Your task to perform on an android device: open device folders in google photos Image 0: 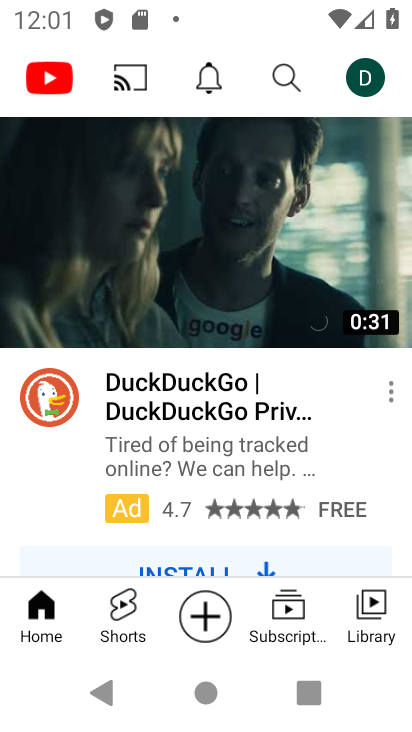
Step 0: press back button
Your task to perform on an android device: open device folders in google photos Image 1: 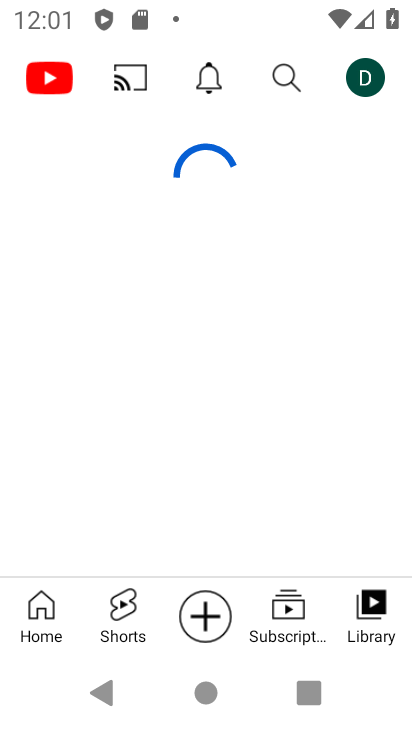
Step 1: press home button
Your task to perform on an android device: open device folders in google photos Image 2: 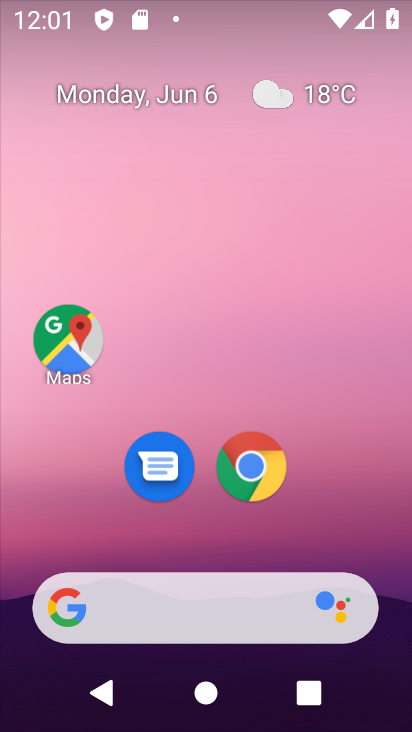
Step 2: drag from (346, 529) to (215, 3)
Your task to perform on an android device: open device folders in google photos Image 3: 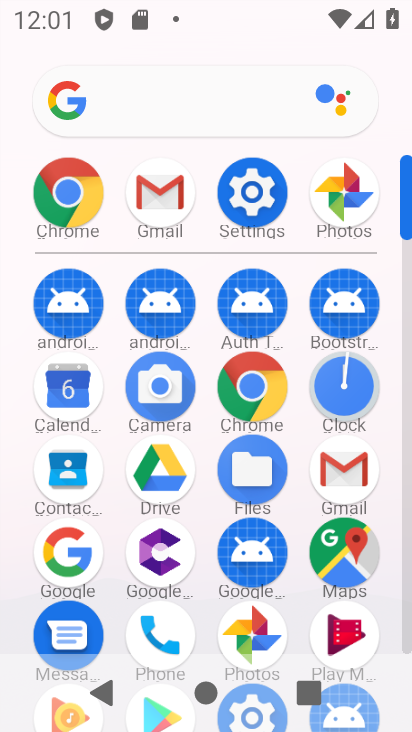
Step 3: drag from (16, 340) to (31, 224)
Your task to perform on an android device: open device folders in google photos Image 4: 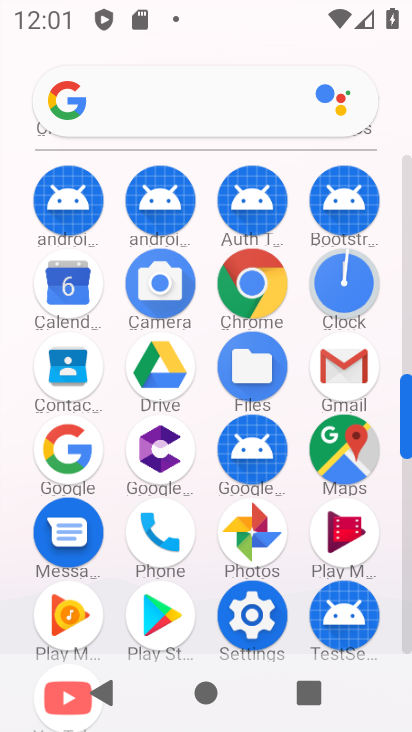
Step 4: click (247, 531)
Your task to perform on an android device: open device folders in google photos Image 5: 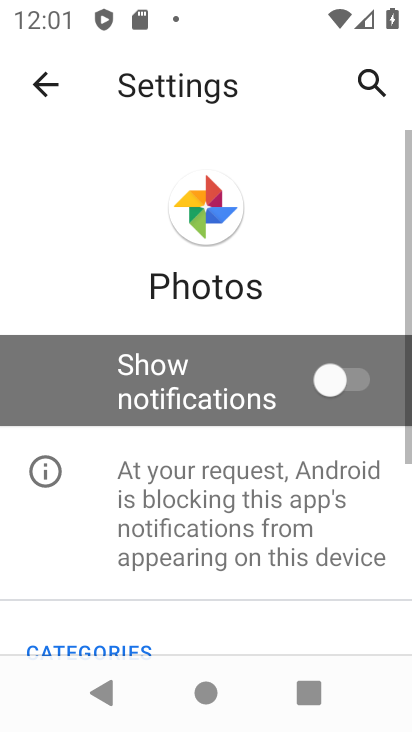
Step 5: click (48, 78)
Your task to perform on an android device: open device folders in google photos Image 6: 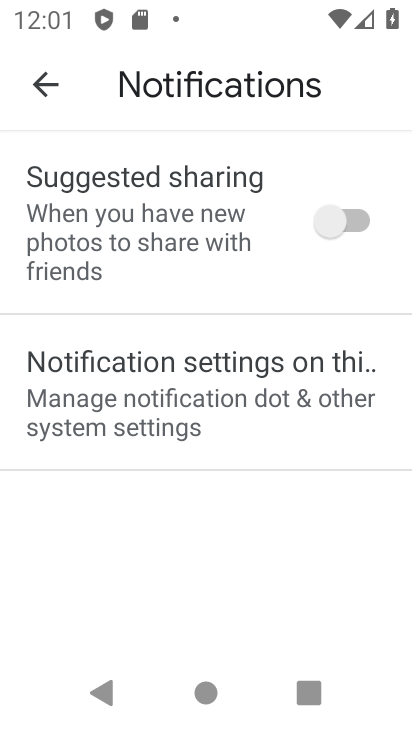
Step 6: click (48, 78)
Your task to perform on an android device: open device folders in google photos Image 7: 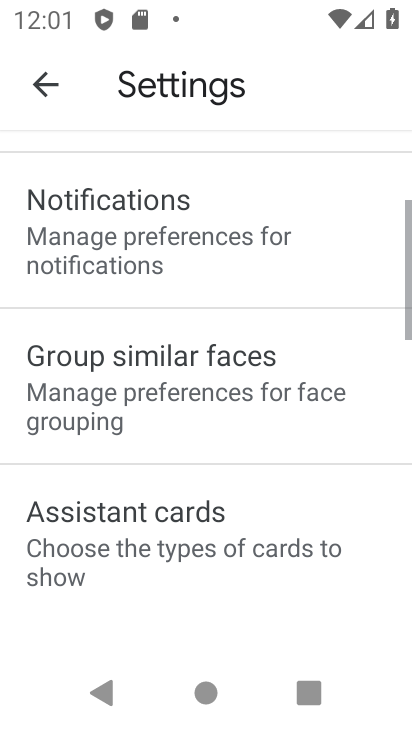
Step 7: click (48, 78)
Your task to perform on an android device: open device folders in google photos Image 8: 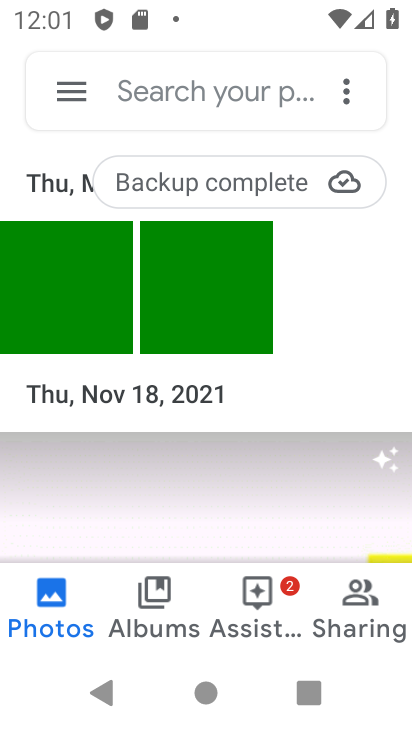
Step 8: click (56, 82)
Your task to perform on an android device: open device folders in google photos Image 9: 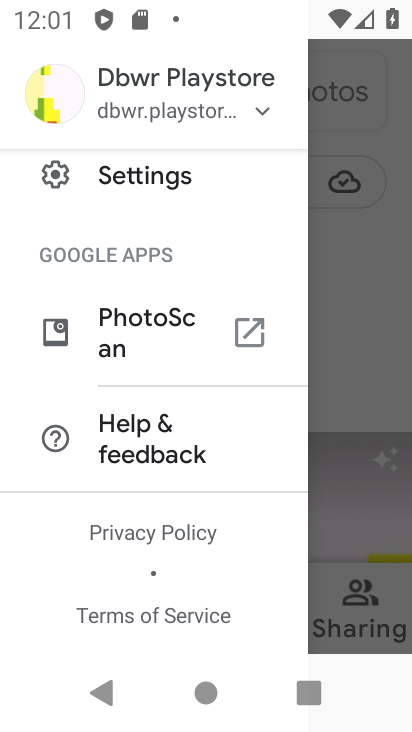
Step 9: drag from (166, 242) to (185, 593)
Your task to perform on an android device: open device folders in google photos Image 10: 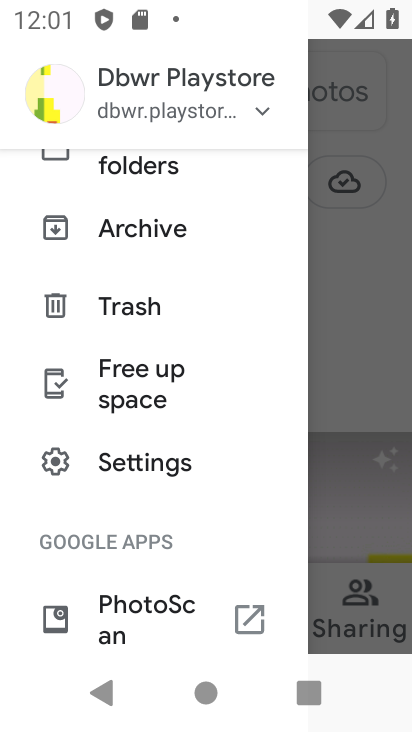
Step 10: drag from (179, 196) to (187, 613)
Your task to perform on an android device: open device folders in google photos Image 11: 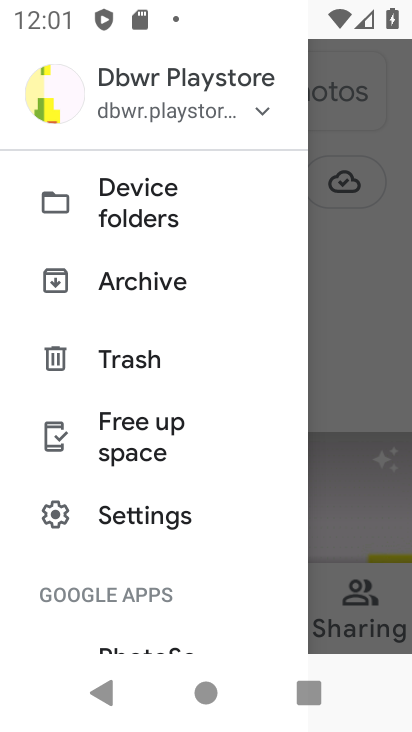
Step 11: click (166, 214)
Your task to perform on an android device: open device folders in google photos Image 12: 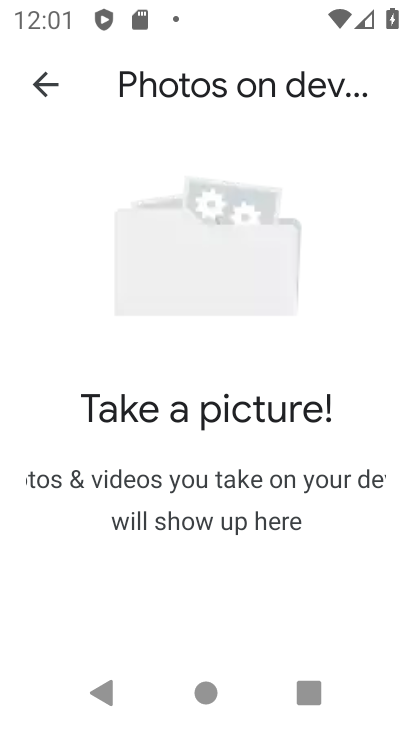
Step 12: task complete